Your task to perform on an android device: Go to Wikipedia Image 0: 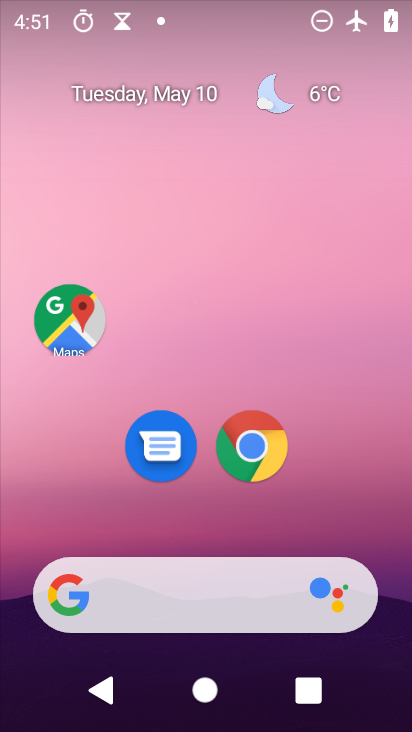
Step 0: click (265, 454)
Your task to perform on an android device: Go to Wikipedia Image 1: 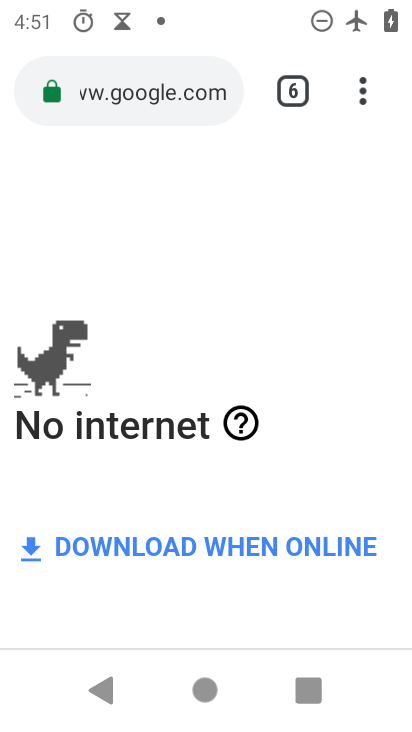
Step 1: task complete